Your task to perform on an android device: open sync settings in chrome Image 0: 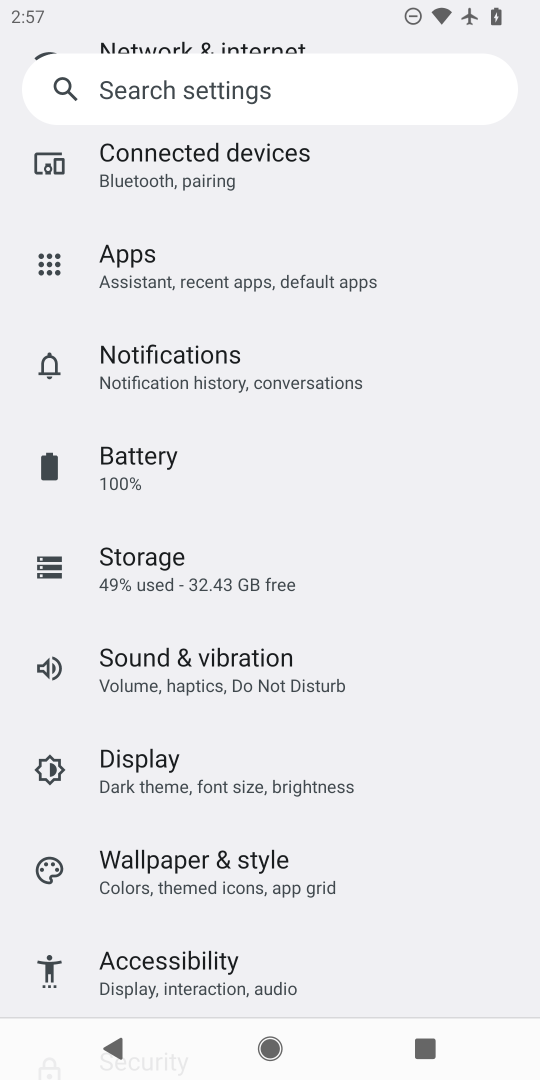
Step 0: press home button
Your task to perform on an android device: open sync settings in chrome Image 1: 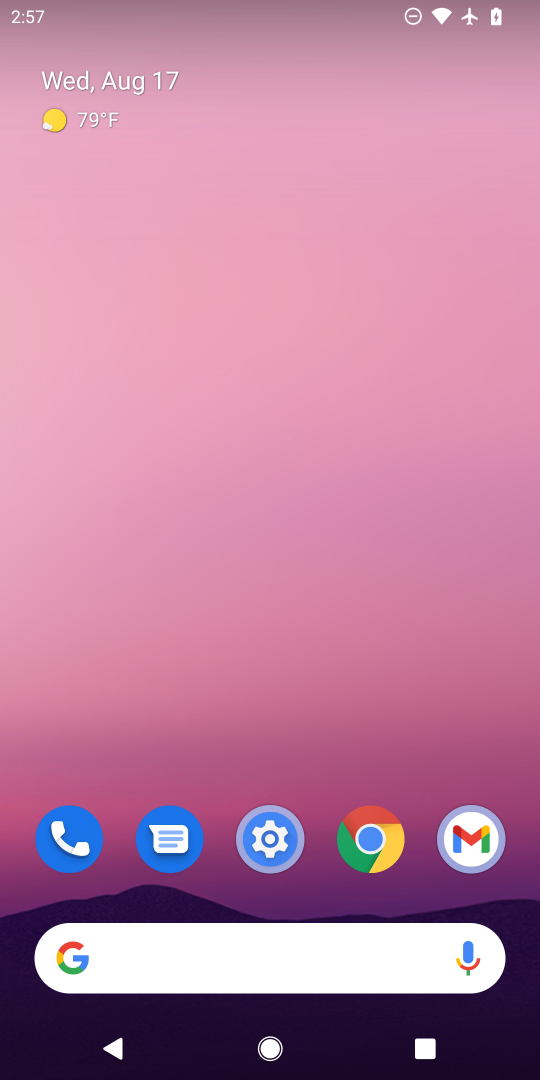
Step 1: click (371, 840)
Your task to perform on an android device: open sync settings in chrome Image 2: 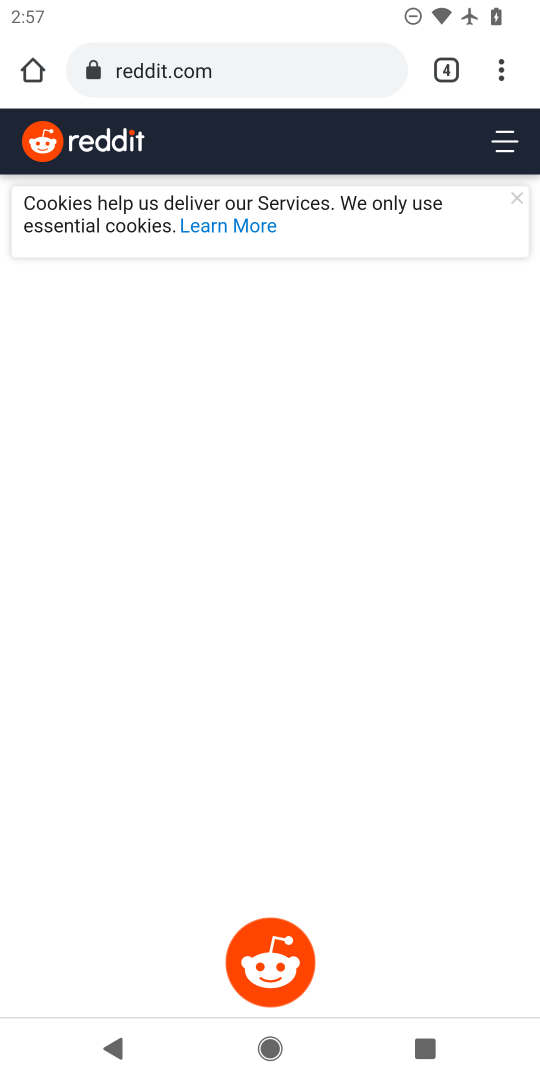
Step 2: click (498, 76)
Your task to perform on an android device: open sync settings in chrome Image 3: 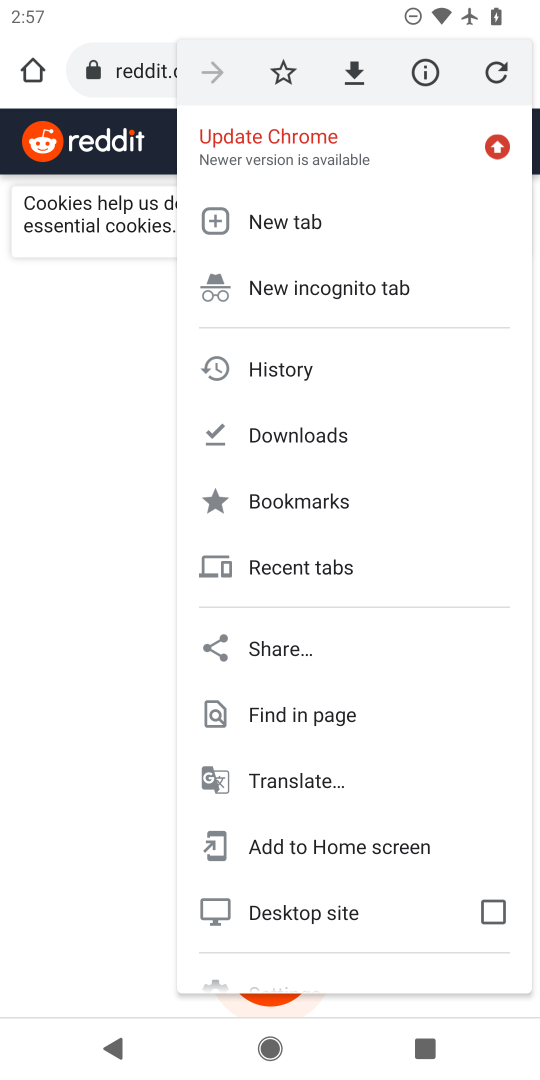
Step 3: drag from (276, 888) to (322, 473)
Your task to perform on an android device: open sync settings in chrome Image 4: 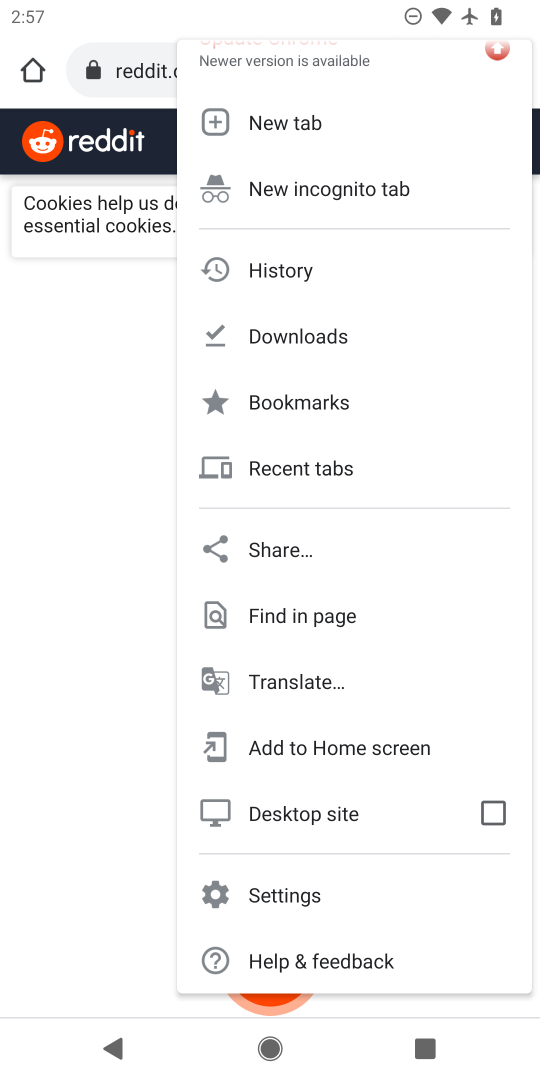
Step 4: click (292, 899)
Your task to perform on an android device: open sync settings in chrome Image 5: 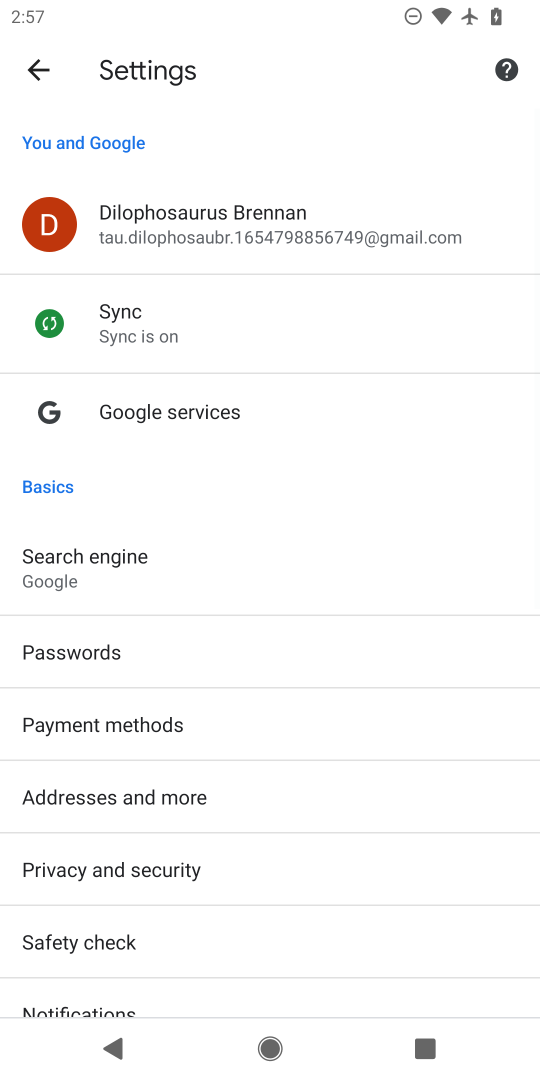
Step 5: drag from (223, 973) to (253, 398)
Your task to perform on an android device: open sync settings in chrome Image 6: 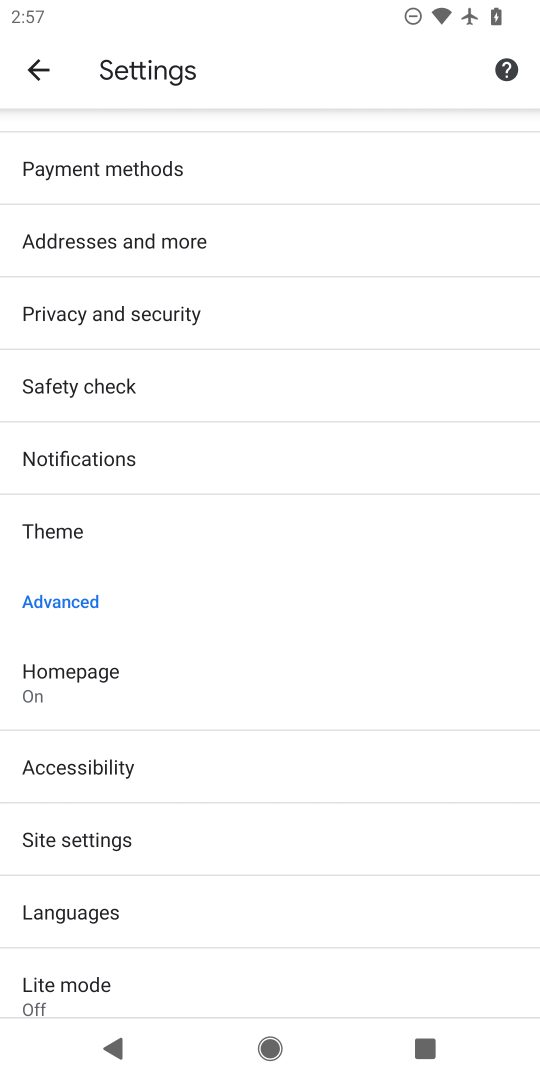
Step 6: click (100, 835)
Your task to perform on an android device: open sync settings in chrome Image 7: 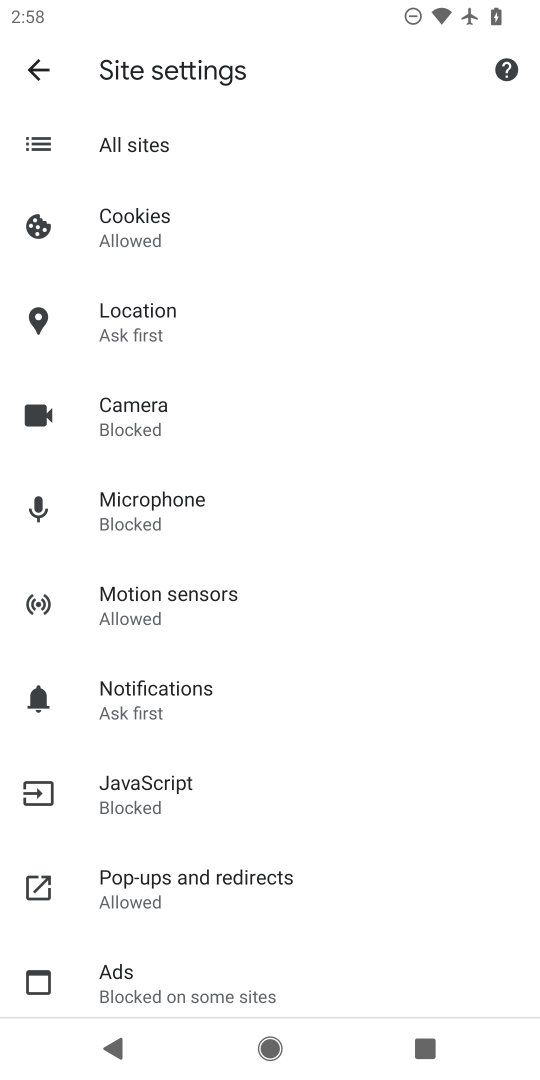
Step 7: drag from (170, 972) to (234, 408)
Your task to perform on an android device: open sync settings in chrome Image 8: 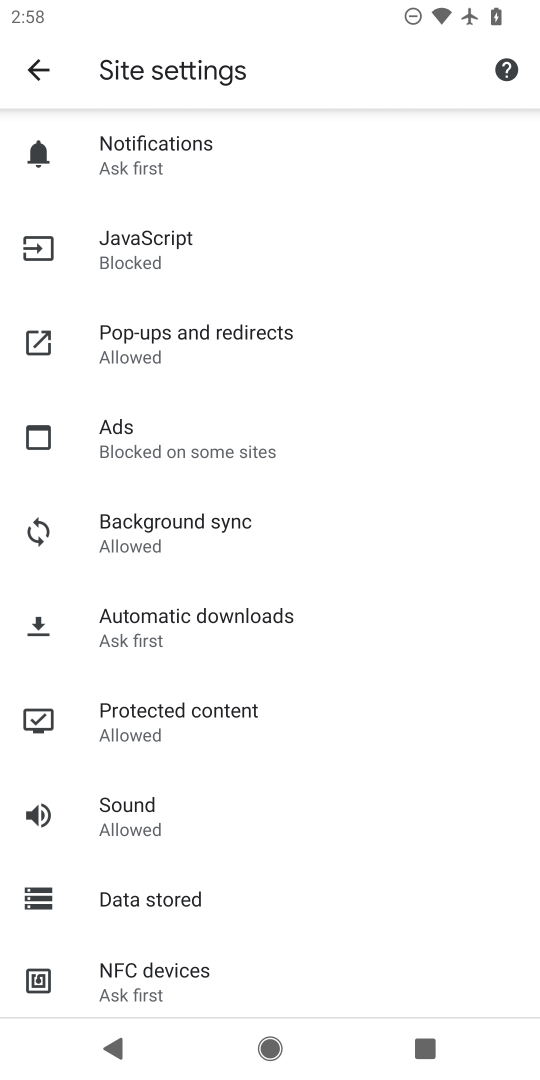
Step 8: click (136, 532)
Your task to perform on an android device: open sync settings in chrome Image 9: 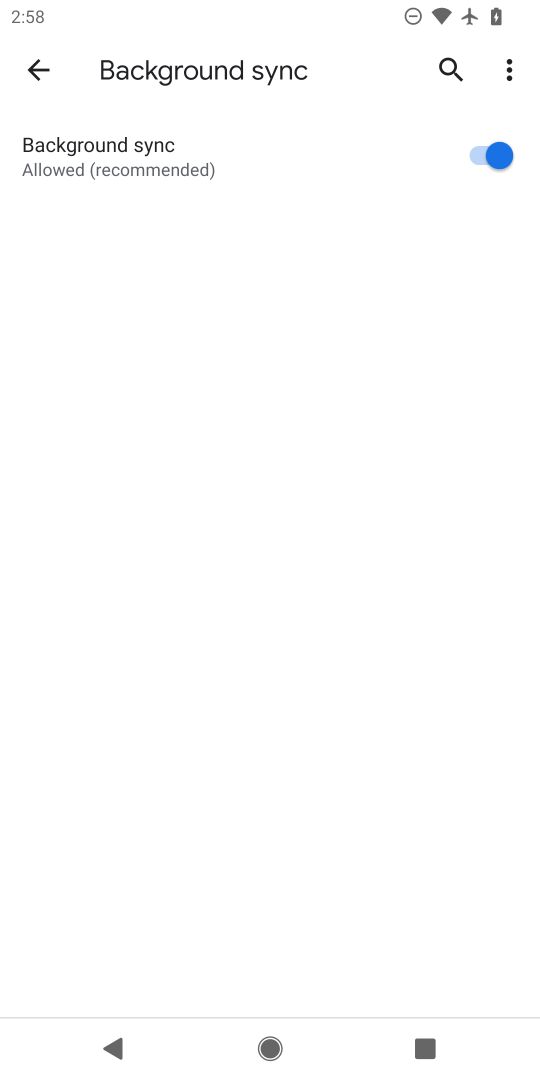
Step 9: task complete